Your task to perform on an android device: Go to Google maps Image 0: 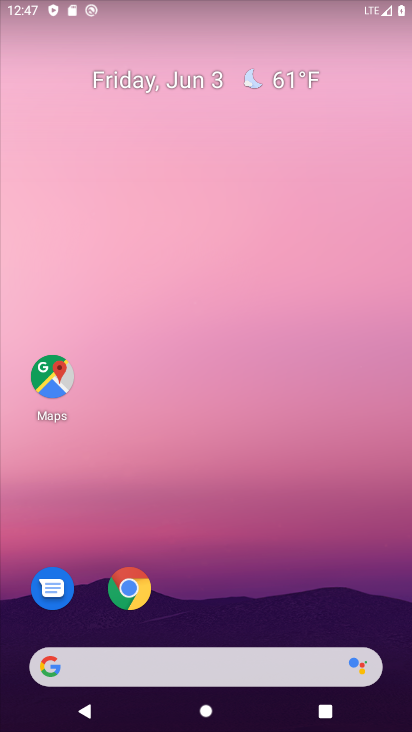
Step 0: click (90, 670)
Your task to perform on an android device: Go to Google maps Image 1: 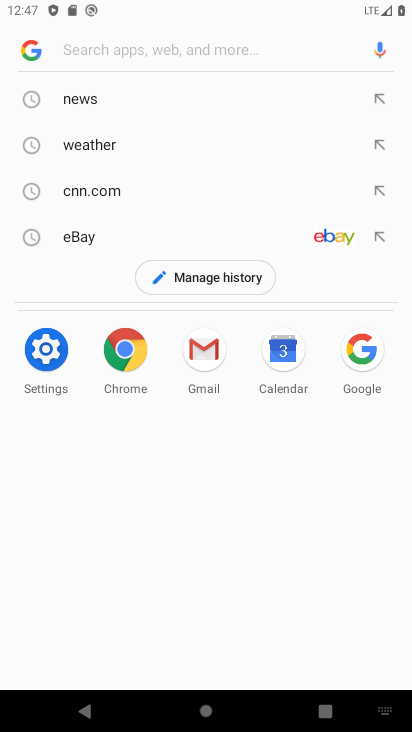
Step 1: click (34, 49)
Your task to perform on an android device: Go to Google maps Image 2: 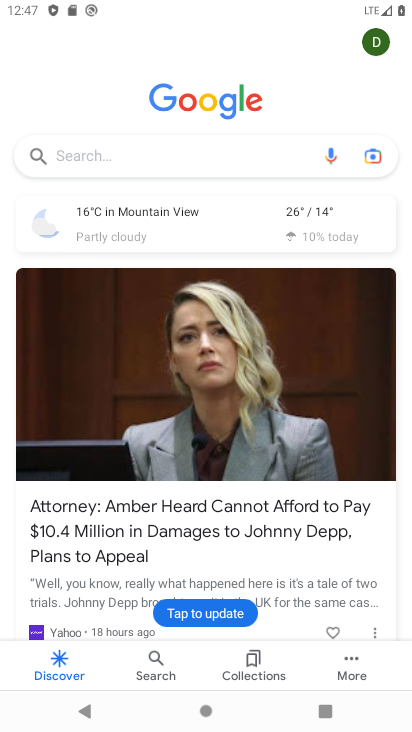
Step 2: task complete